Your task to perform on an android device: set default search engine in the chrome app Image 0: 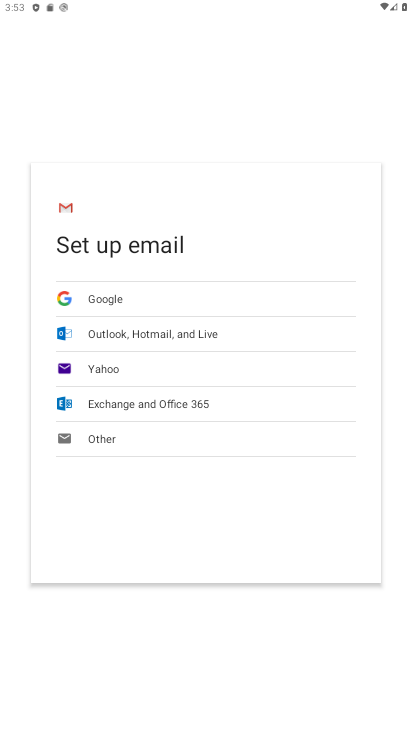
Step 0: press back button
Your task to perform on an android device: set default search engine in the chrome app Image 1: 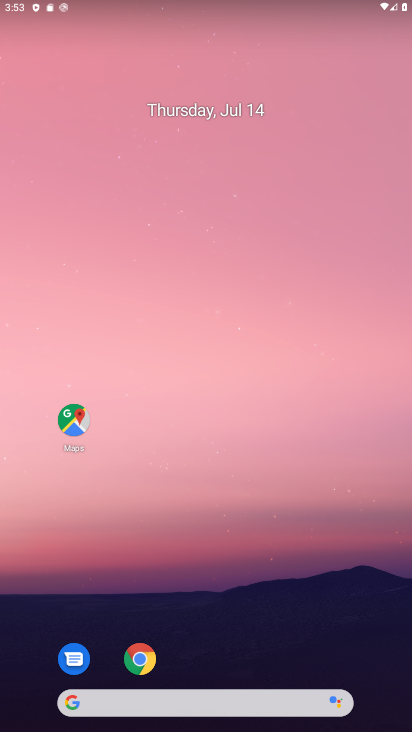
Step 1: drag from (223, 487) to (138, 79)
Your task to perform on an android device: set default search engine in the chrome app Image 2: 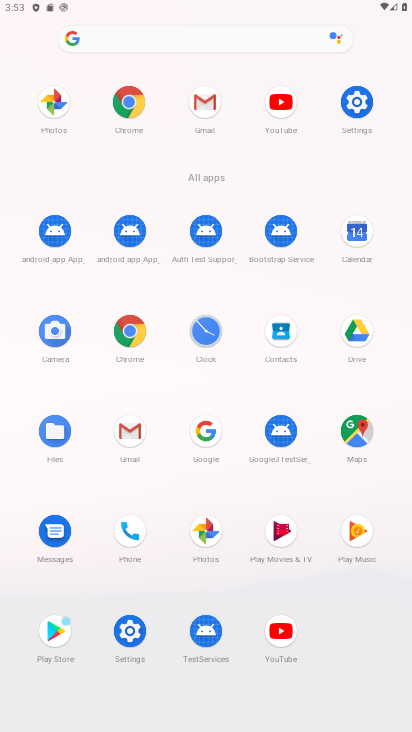
Step 2: drag from (200, 434) to (129, 31)
Your task to perform on an android device: set default search engine in the chrome app Image 3: 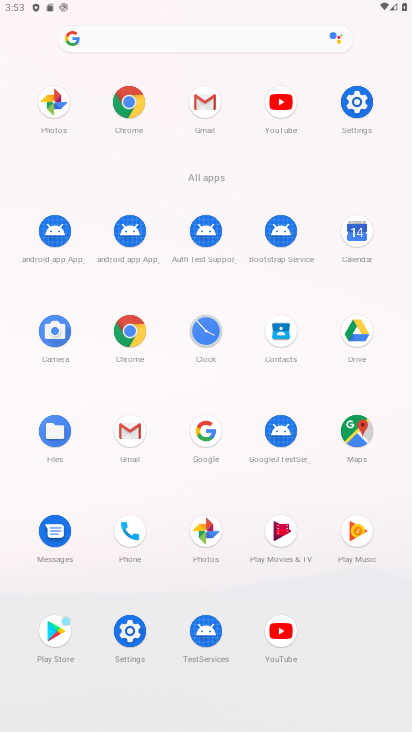
Step 3: click (130, 317)
Your task to perform on an android device: set default search engine in the chrome app Image 4: 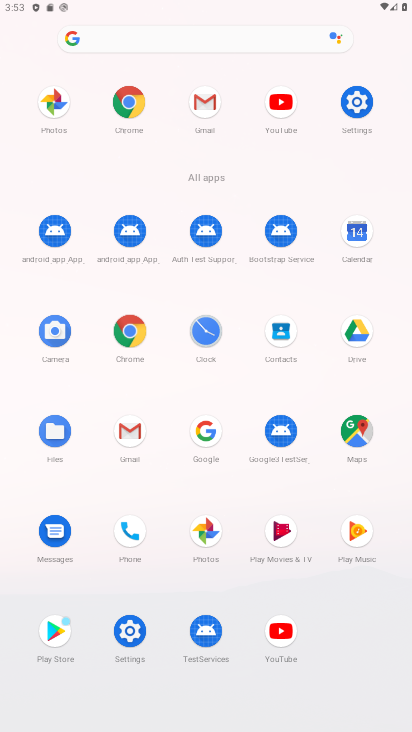
Step 4: click (128, 327)
Your task to perform on an android device: set default search engine in the chrome app Image 5: 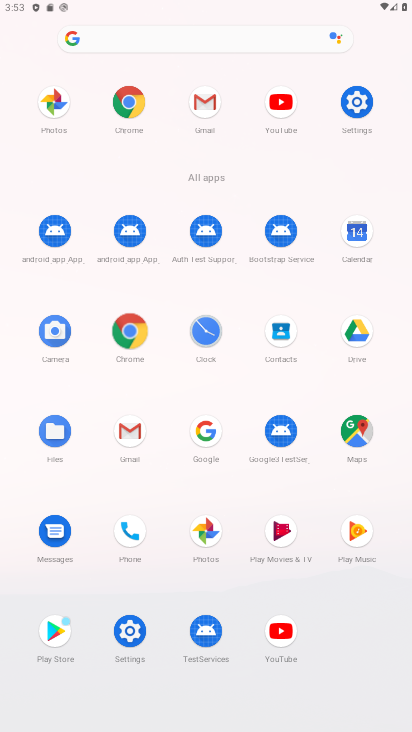
Step 5: click (124, 345)
Your task to perform on an android device: set default search engine in the chrome app Image 6: 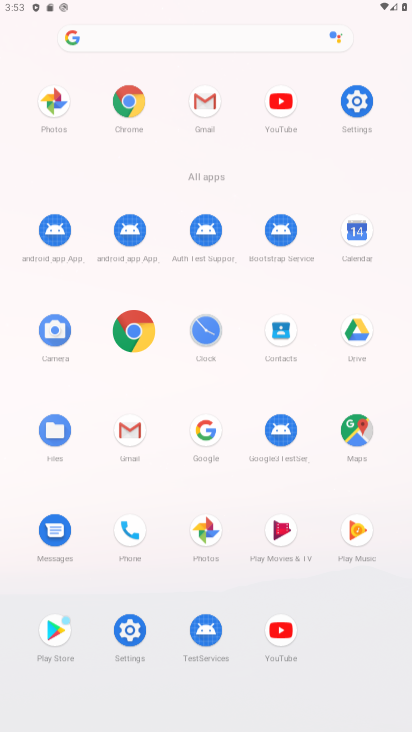
Step 6: click (123, 346)
Your task to perform on an android device: set default search engine in the chrome app Image 7: 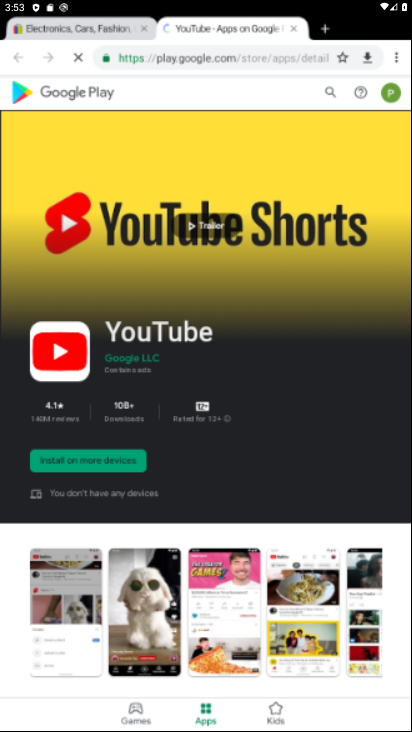
Step 7: click (133, 324)
Your task to perform on an android device: set default search engine in the chrome app Image 8: 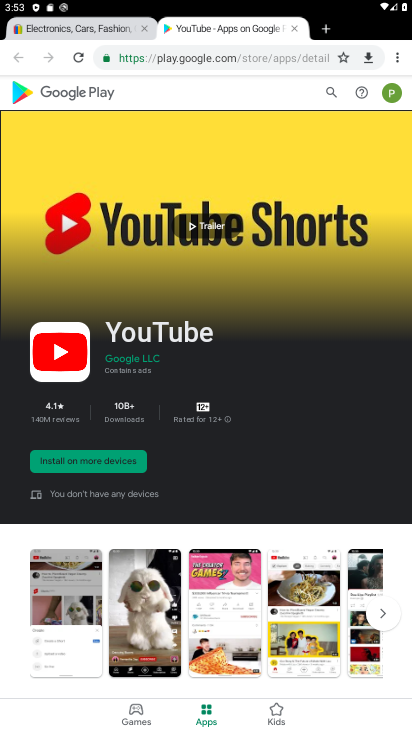
Step 8: drag from (397, 50) to (271, 387)
Your task to perform on an android device: set default search engine in the chrome app Image 9: 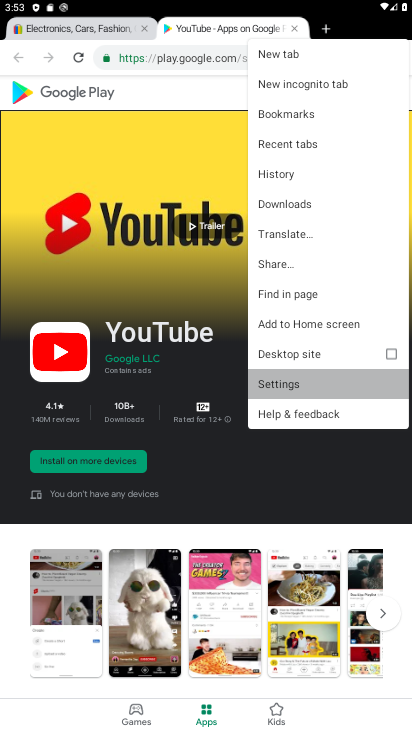
Step 9: click (278, 384)
Your task to perform on an android device: set default search engine in the chrome app Image 10: 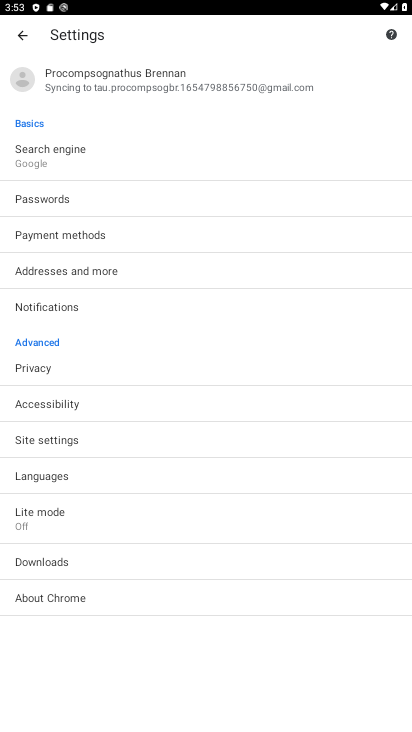
Step 10: click (36, 141)
Your task to perform on an android device: set default search engine in the chrome app Image 11: 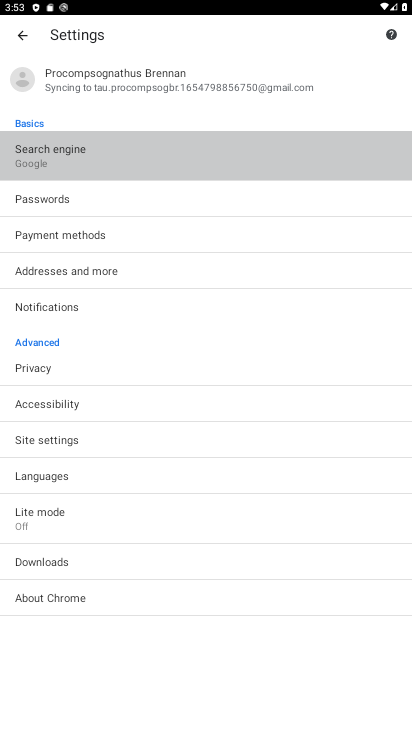
Step 11: click (36, 147)
Your task to perform on an android device: set default search engine in the chrome app Image 12: 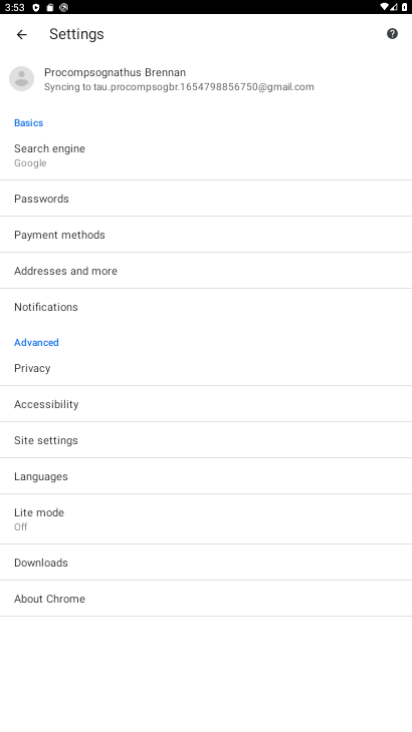
Step 12: click (35, 151)
Your task to perform on an android device: set default search engine in the chrome app Image 13: 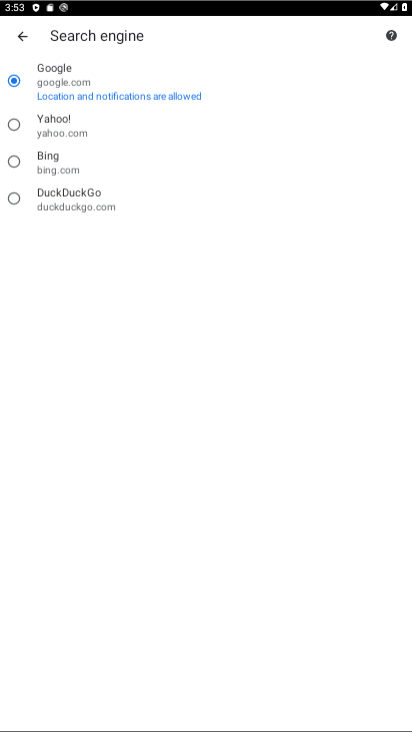
Step 13: click (36, 154)
Your task to perform on an android device: set default search engine in the chrome app Image 14: 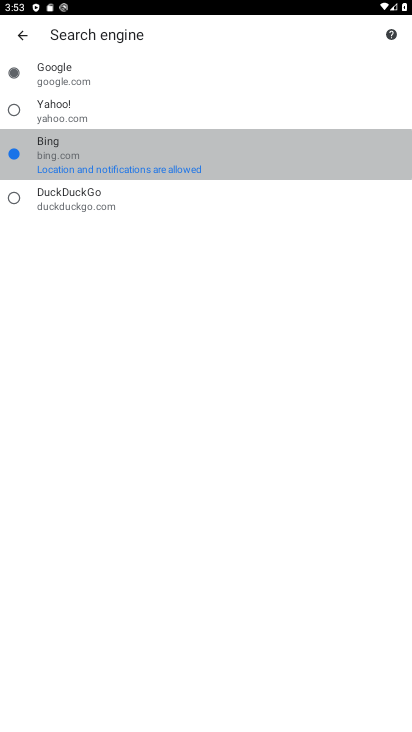
Step 14: click (36, 156)
Your task to perform on an android device: set default search engine in the chrome app Image 15: 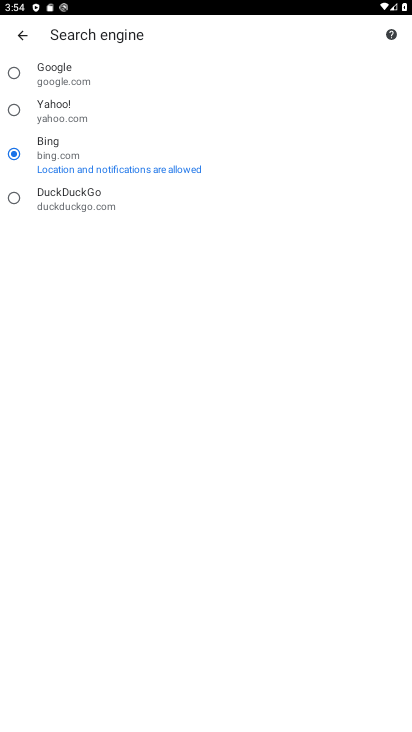
Step 15: click (19, 74)
Your task to perform on an android device: set default search engine in the chrome app Image 16: 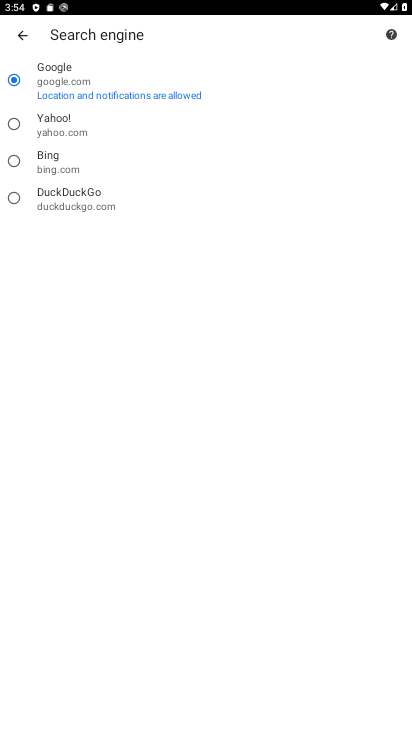
Step 16: task complete